Your task to perform on an android device: turn on wifi Image 0: 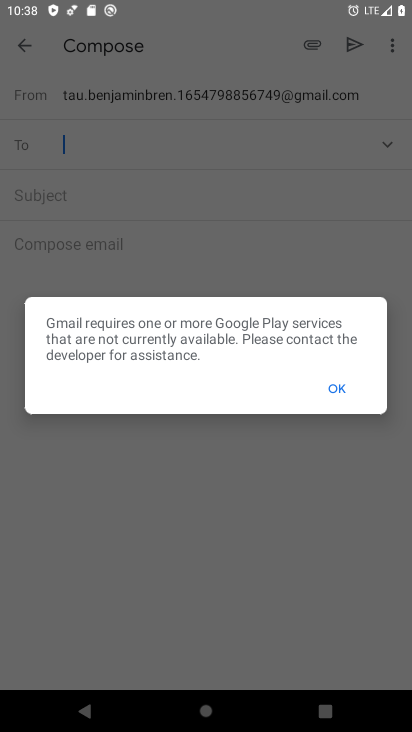
Step 0: press home button
Your task to perform on an android device: turn on wifi Image 1: 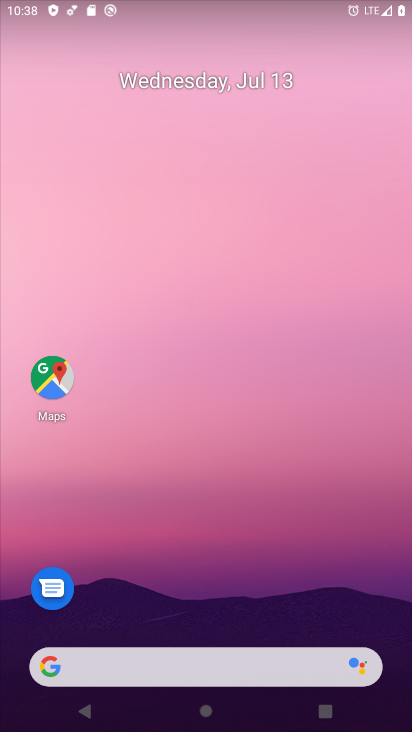
Step 1: drag from (144, 708) to (245, 57)
Your task to perform on an android device: turn on wifi Image 2: 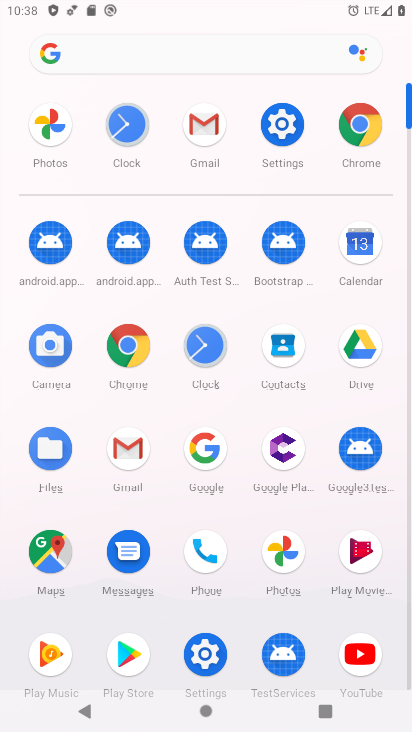
Step 2: click (274, 132)
Your task to perform on an android device: turn on wifi Image 3: 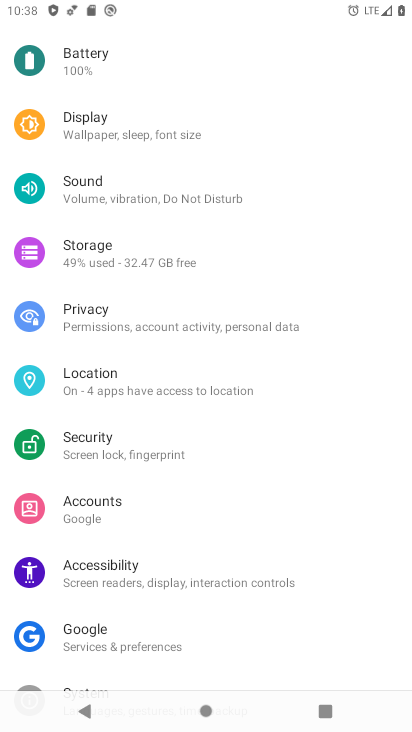
Step 3: drag from (257, 180) to (319, 637)
Your task to perform on an android device: turn on wifi Image 4: 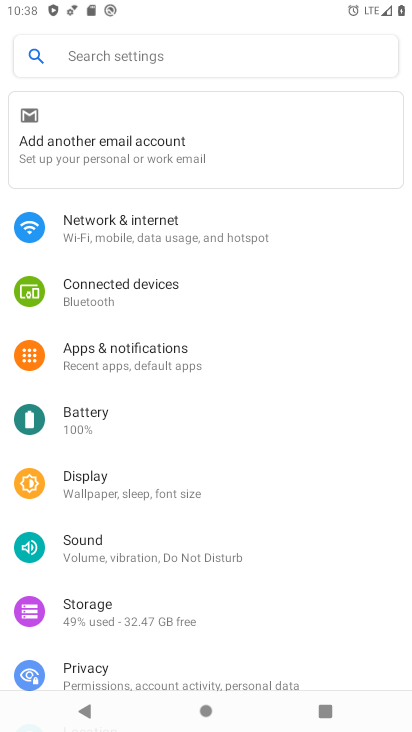
Step 4: click (282, 230)
Your task to perform on an android device: turn on wifi Image 5: 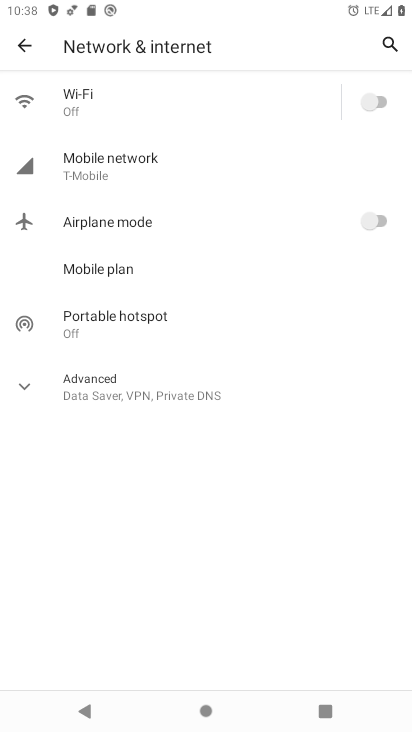
Step 5: click (376, 100)
Your task to perform on an android device: turn on wifi Image 6: 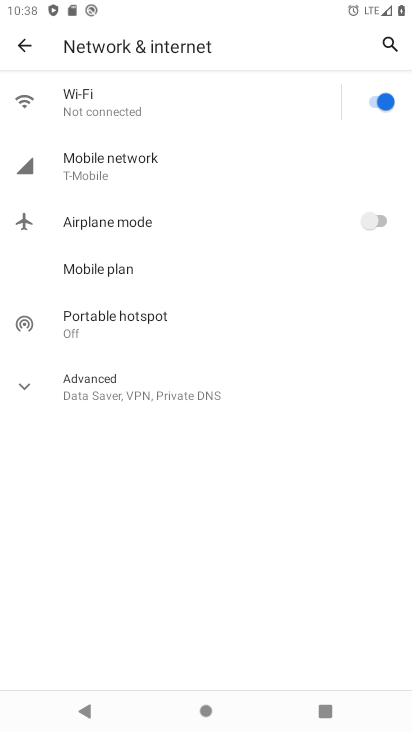
Step 6: task complete